Your task to perform on an android device: uninstall "Facebook Messenger" Image 0: 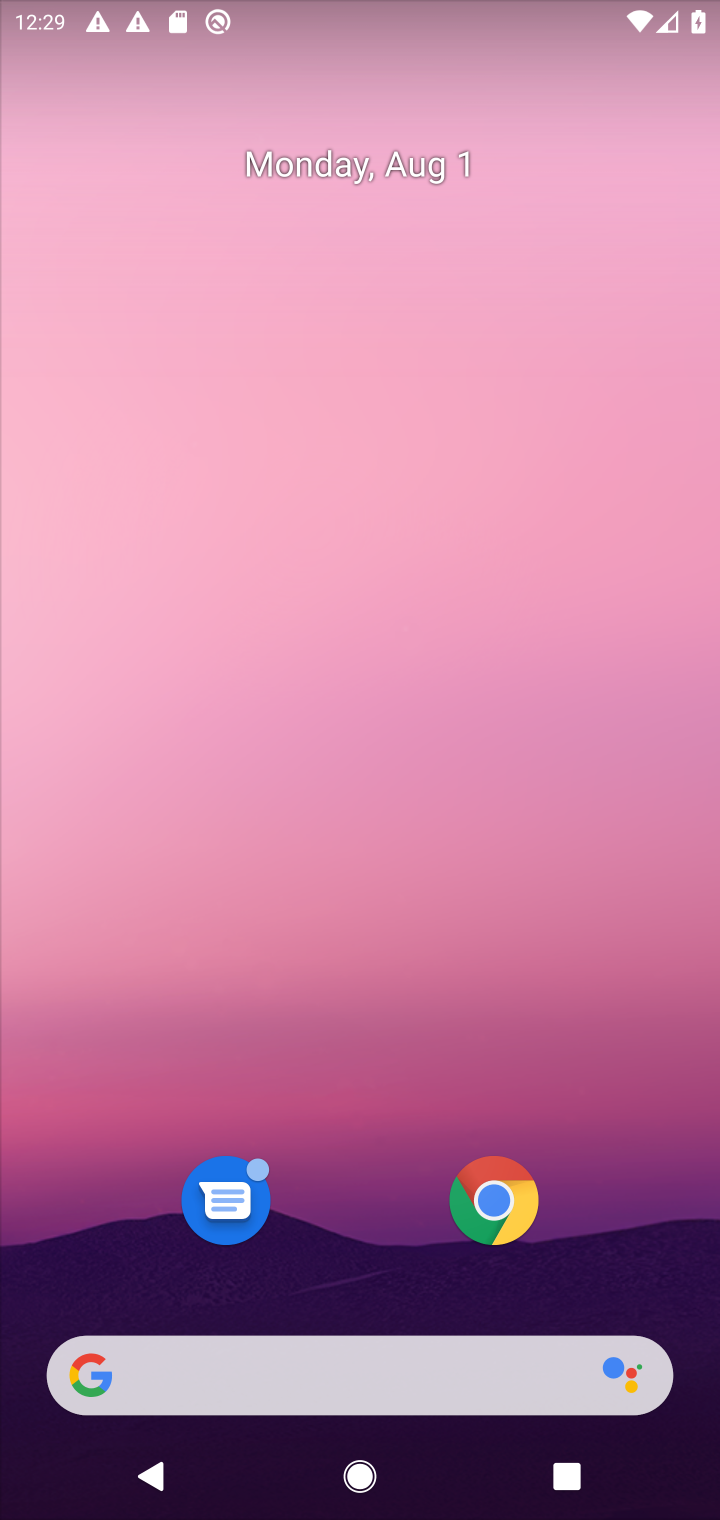
Step 0: drag from (399, 479) to (429, 182)
Your task to perform on an android device: uninstall "Facebook Messenger" Image 1: 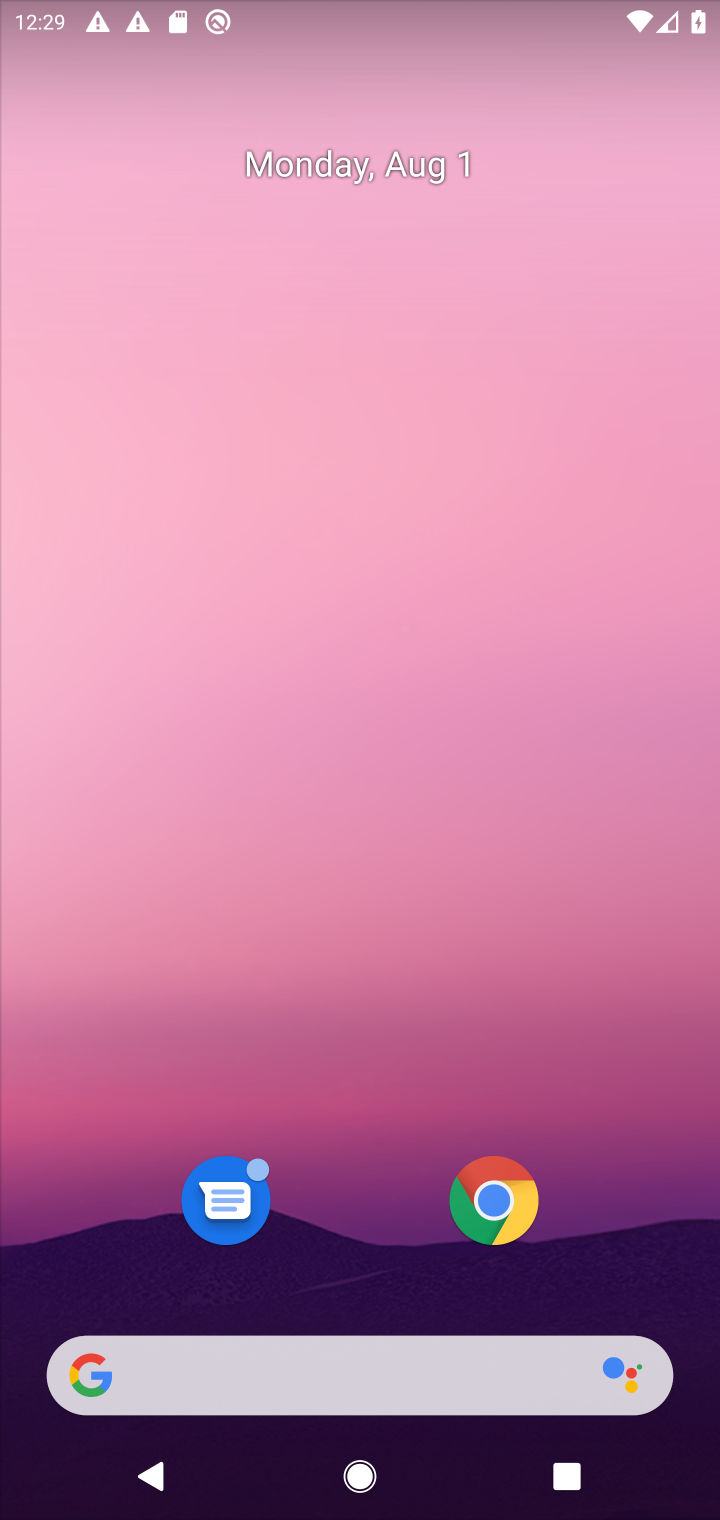
Step 1: drag from (334, 1281) to (313, 290)
Your task to perform on an android device: uninstall "Facebook Messenger" Image 2: 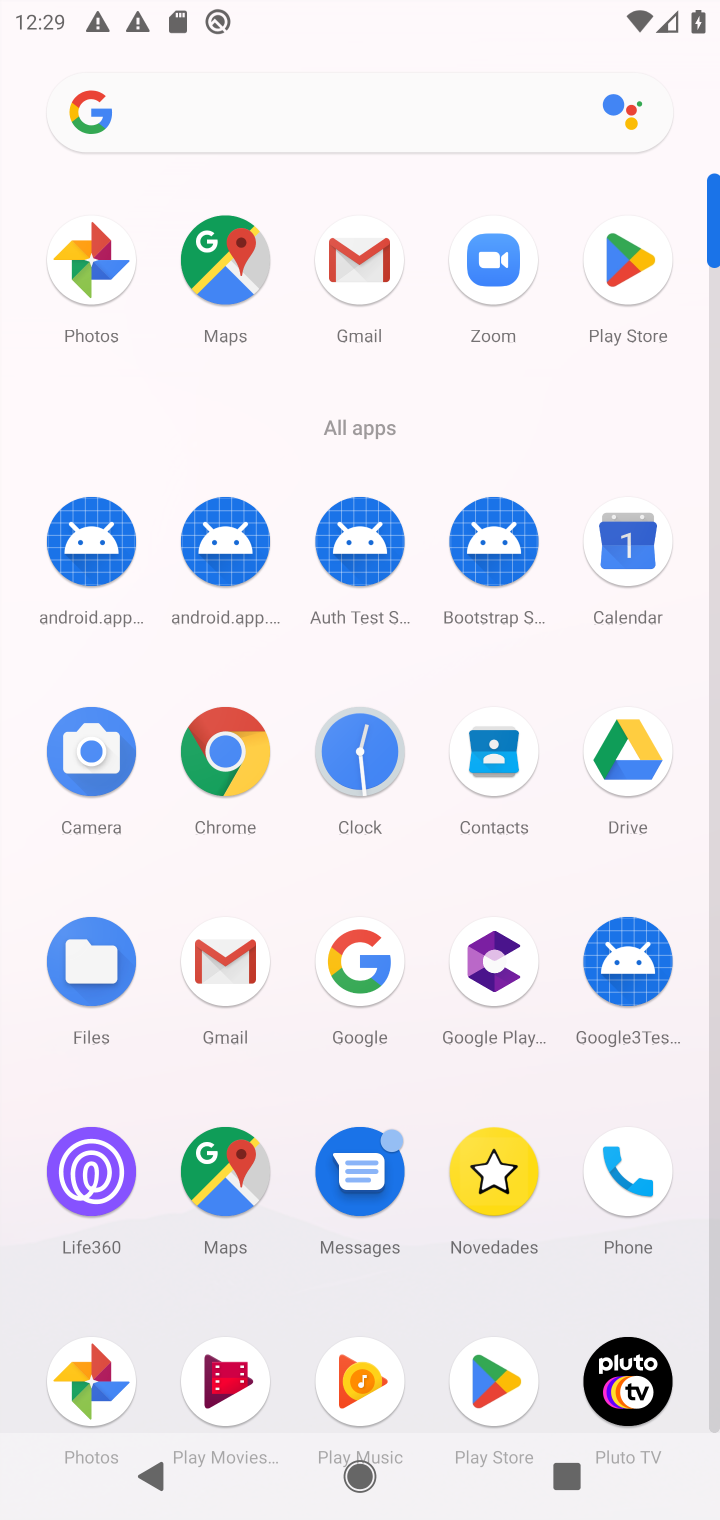
Step 2: click (652, 279)
Your task to perform on an android device: uninstall "Facebook Messenger" Image 3: 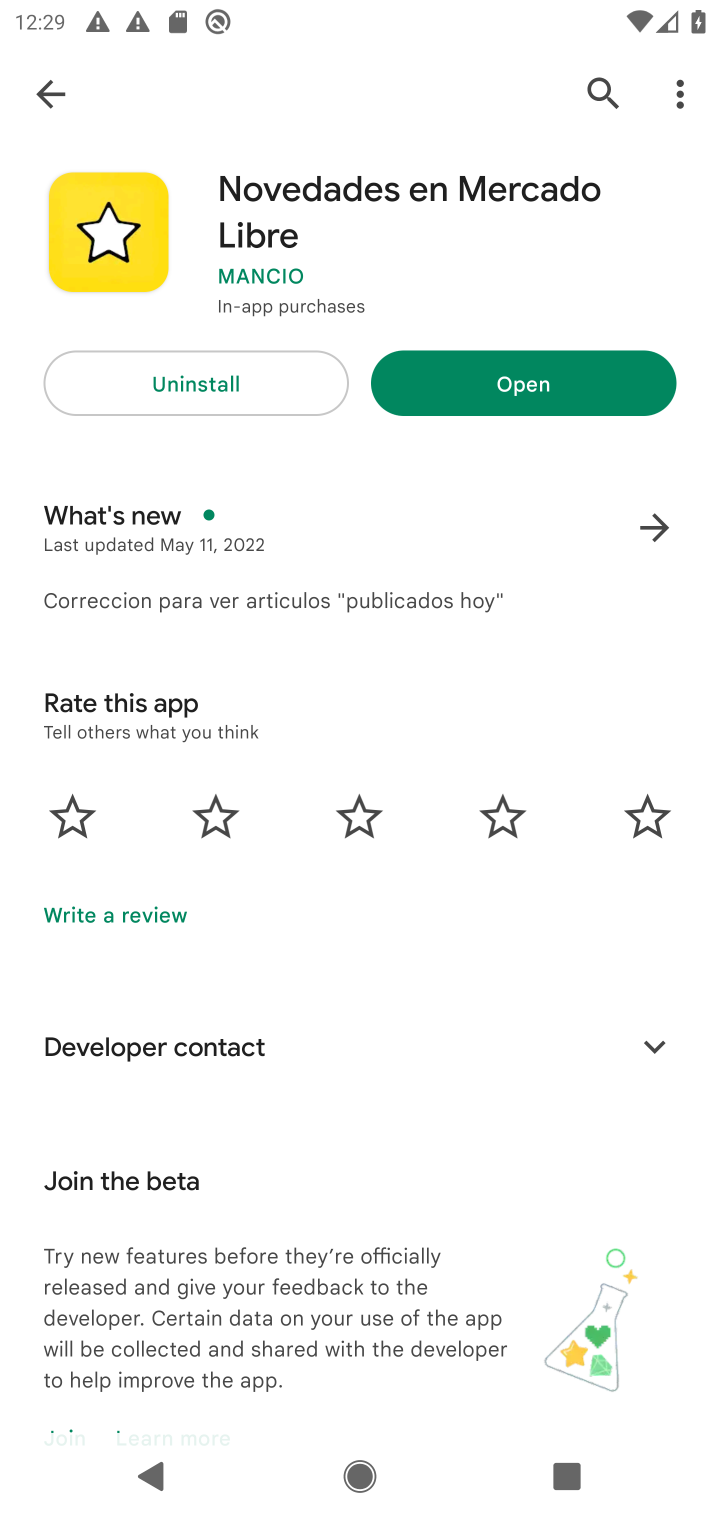
Step 3: click (592, 83)
Your task to perform on an android device: uninstall "Facebook Messenger" Image 4: 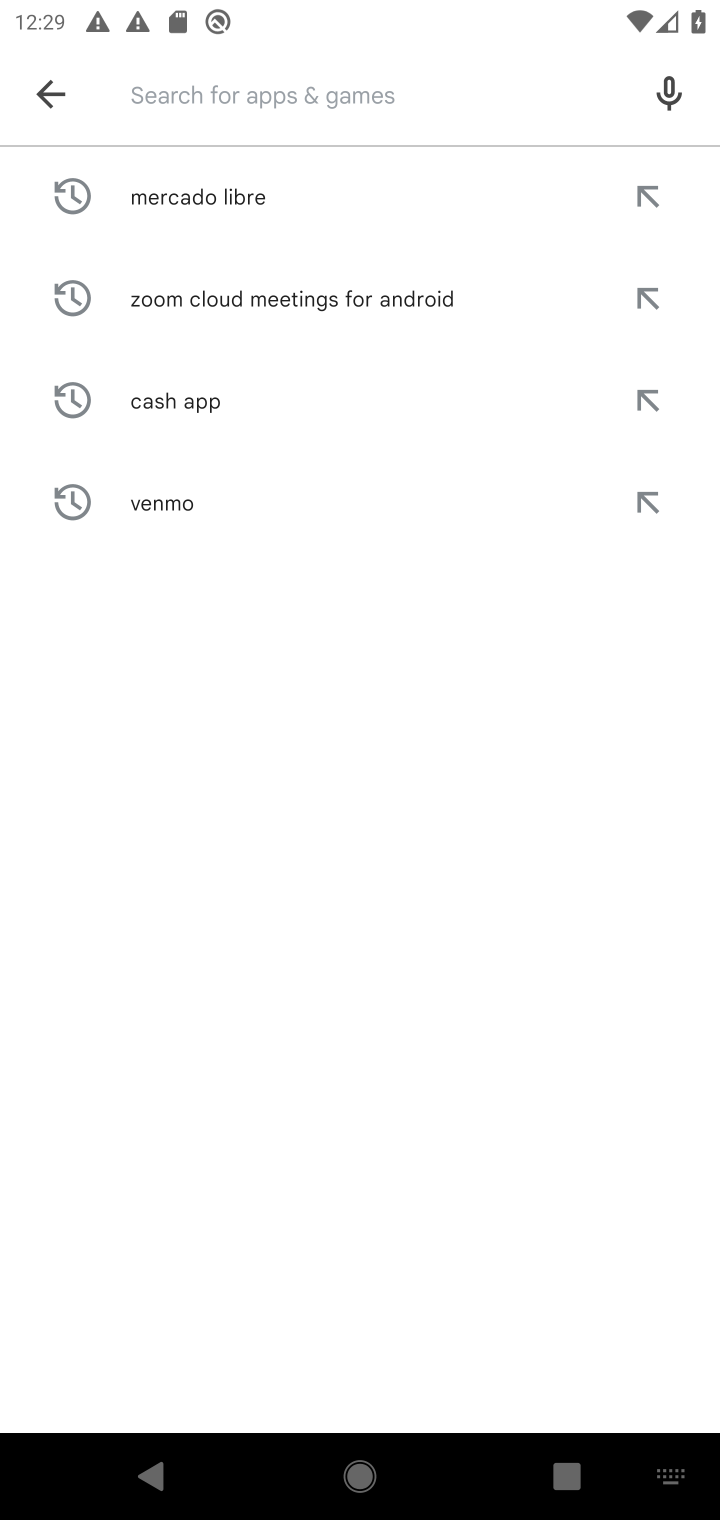
Step 4: type "facebook messenger"
Your task to perform on an android device: uninstall "Facebook Messenger" Image 5: 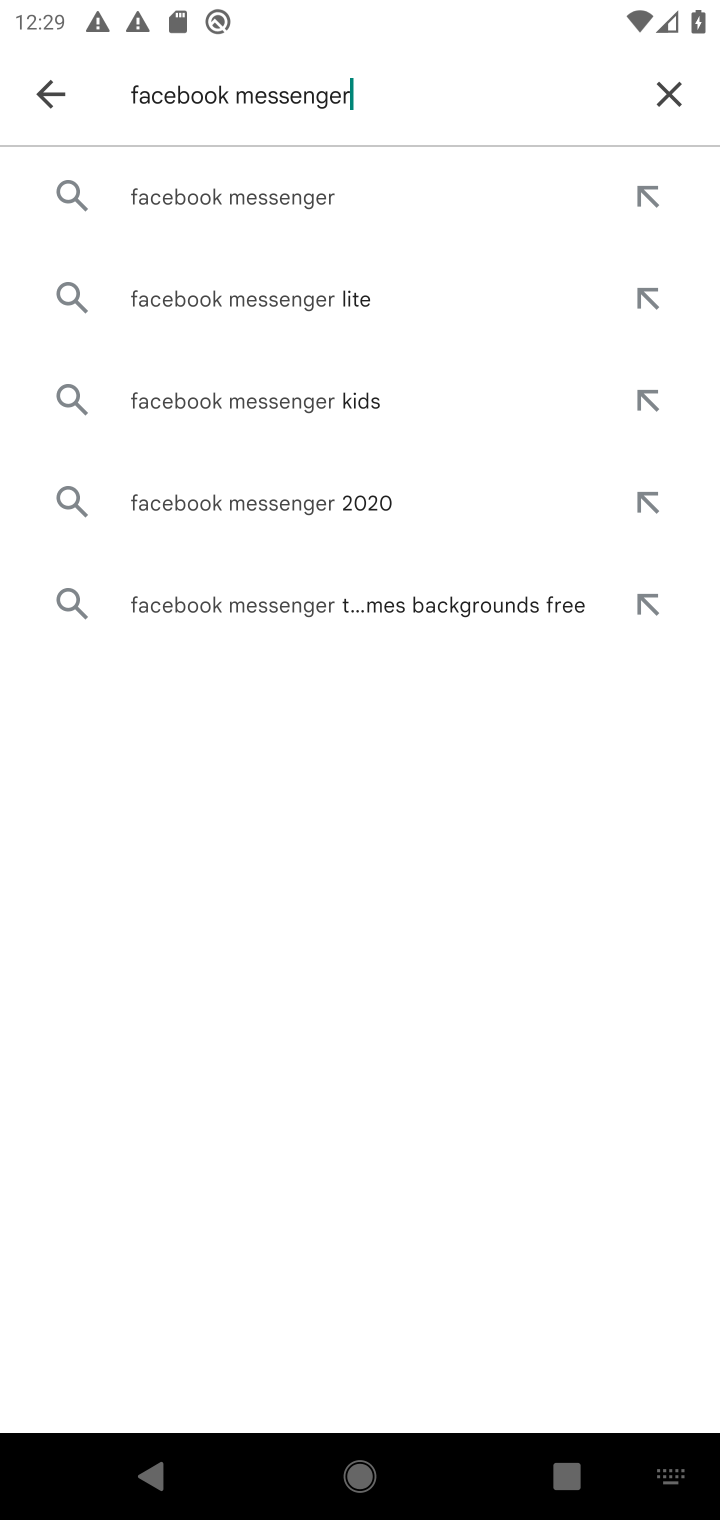
Step 5: click (273, 202)
Your task to perform on an android device: uninstall "Facebook Messenger" Image 6: 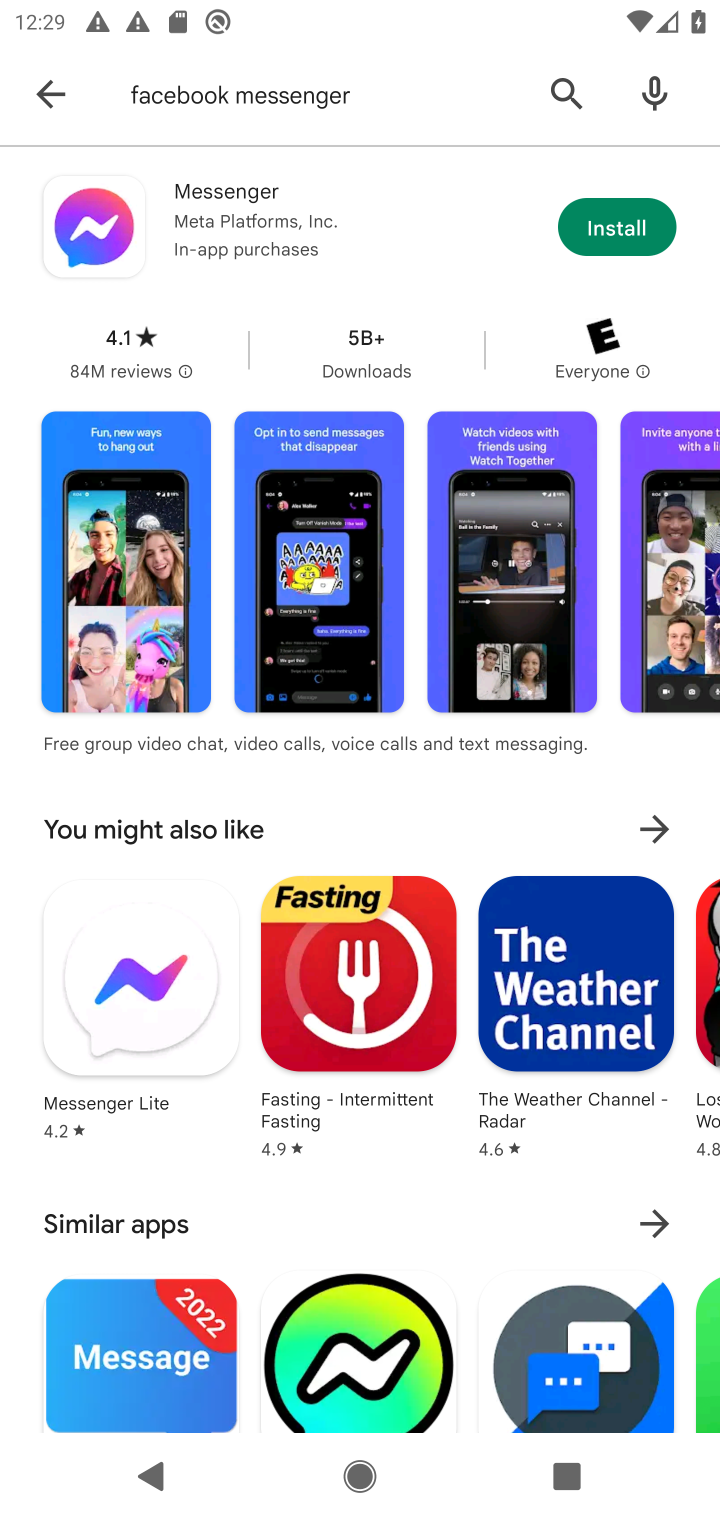
Step 6: click (280, 202)
Your task to perform on an android device: uninstall "Facebook Messenger" Image 7: 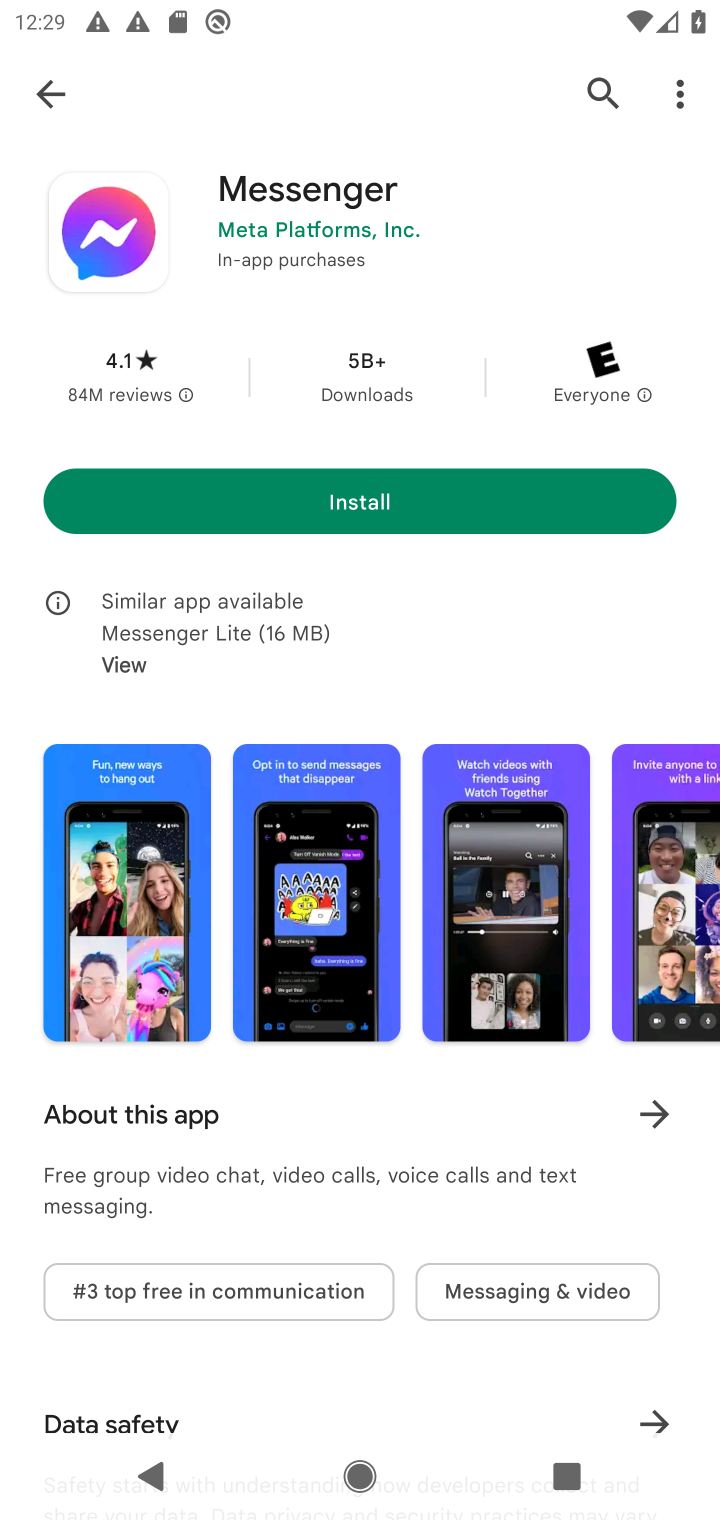
Step 7: task complete